Your task to perform on an android device: refresh tabs in the chrome app Image 0: 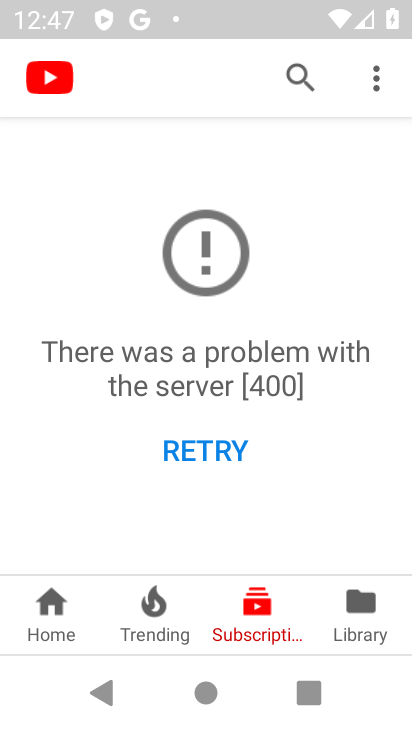
Step 0: press home button
Your task to perform on an android device: refresh tabs in the chrome app Image 1: 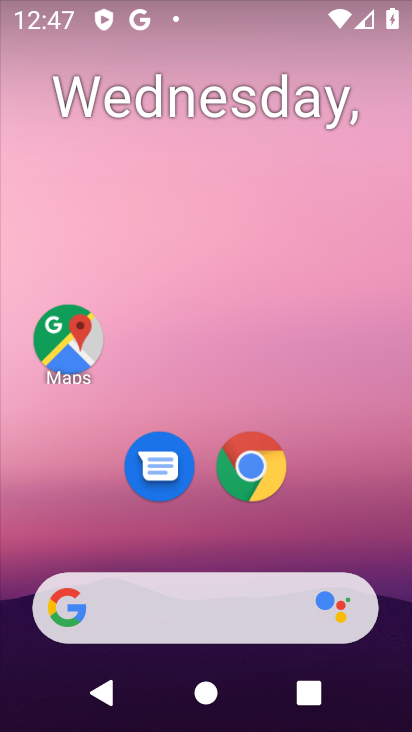
Step 1: click (273, 471)
Your task to perform on an android device: refresh tabs in the chrome app Image 2: 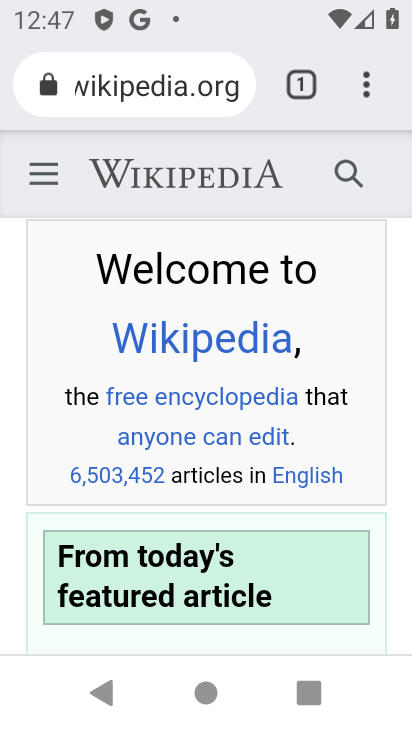
Step 2: click (371, 79)
Your task to perform on an android device: refresh tabs in the chrome app Image 3: 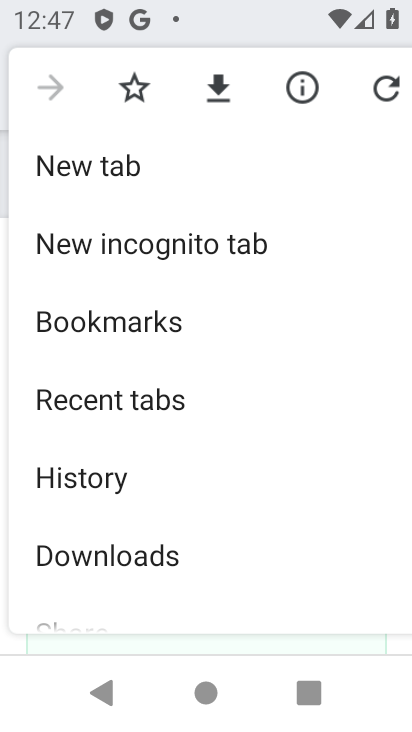
Step 3: click (381, 85)
Your task to perform on an android device: refresh tabs in the chrome app Image 4: 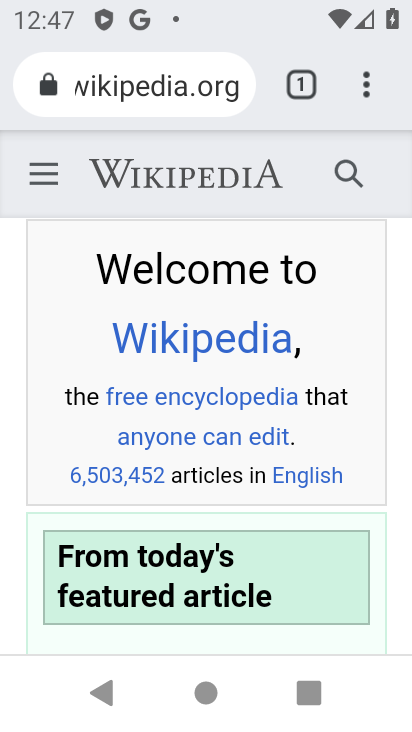
Step 4: task complete